Your task to perform on an android device: Go to eBay Image 0: 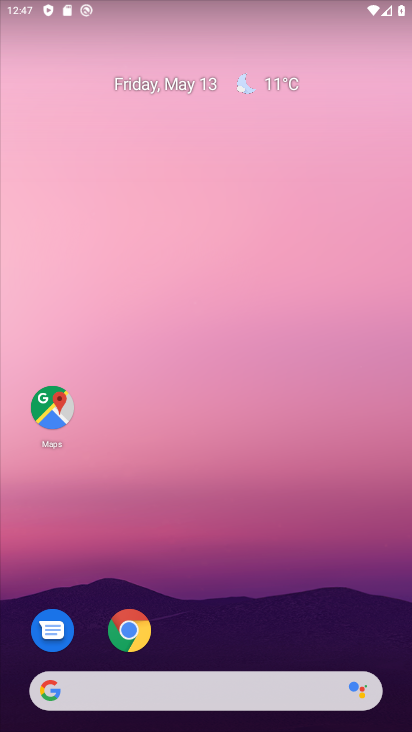
Step 0: click (121, 629)
Your task to perform on an android device: Go to eBay Image 1: 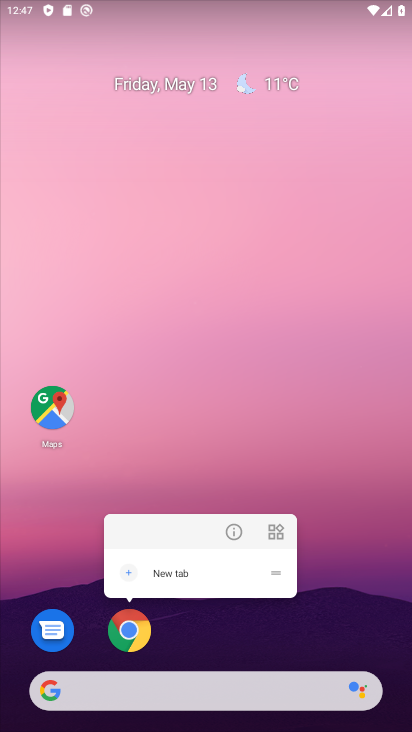
Step 1: click (142, 626)
Your task to perform on an android device: Go to eBay Image 2: 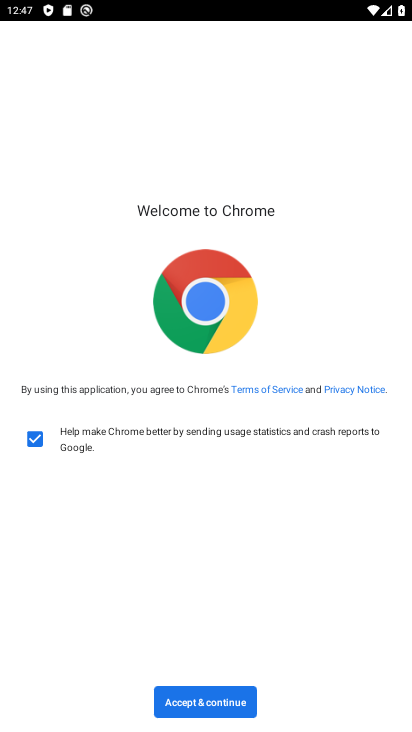
Step 2: click (192, 704)
Your task to perform on an android device: Go to eBay Image 3: 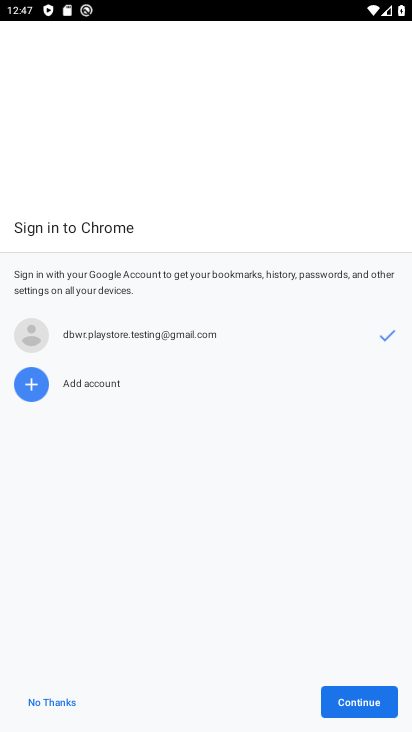
Step 3: click (376, 705)
Your task to perform on an android device: Go to eBay Image 4: 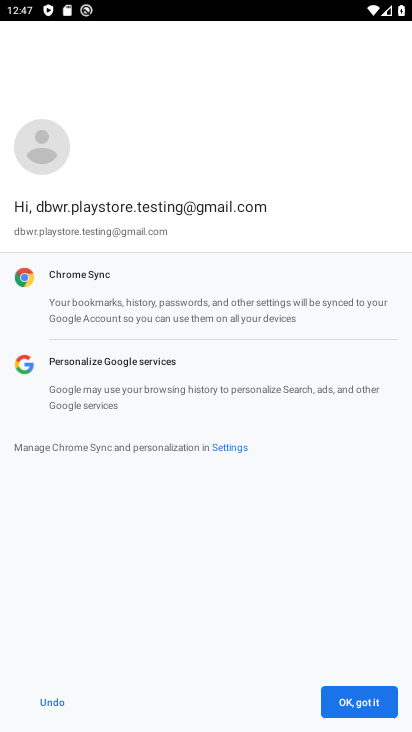
Step 4: click (376, 705)
Your task to perform on an android device: Go to eBay Image 5: 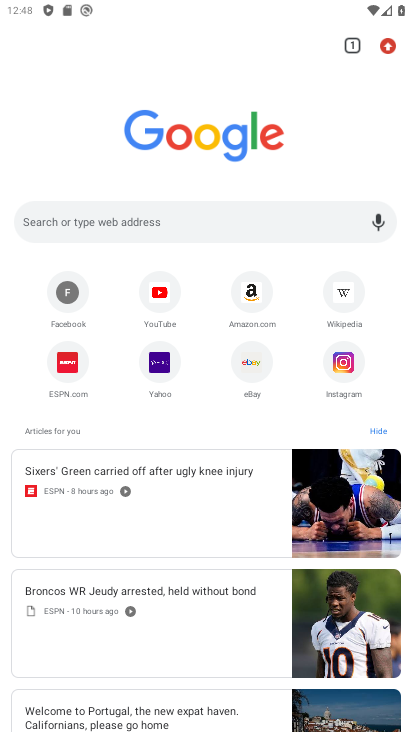
Step 5: click (256, 365)
Your task to perform on an android device: Go to eBay Image 6: 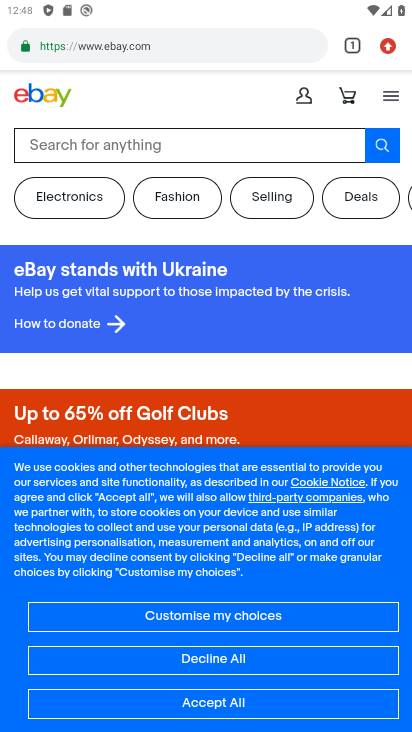
Step 6: task complete